Your task to perform on an android device: Go to location settings Image 0: 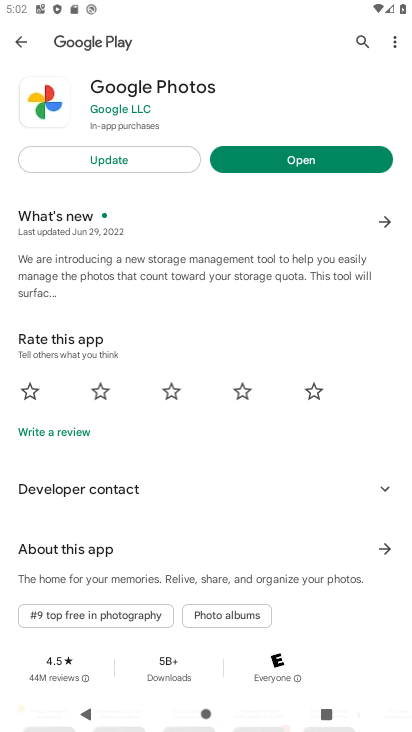
Step 0: drag from (231, 5) to (168, 554)
Your task to perform on an android device: Go to location settings Image 1: 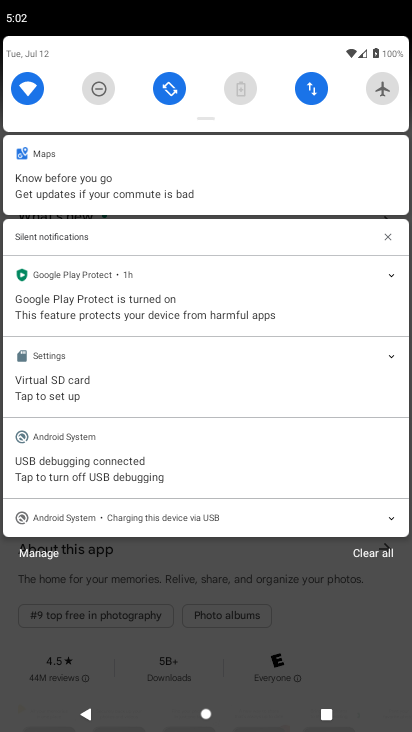
Step 1: drag from (221, 54) to (212, 626)
Your task to perform on an android device: Go to location settings Image 2: 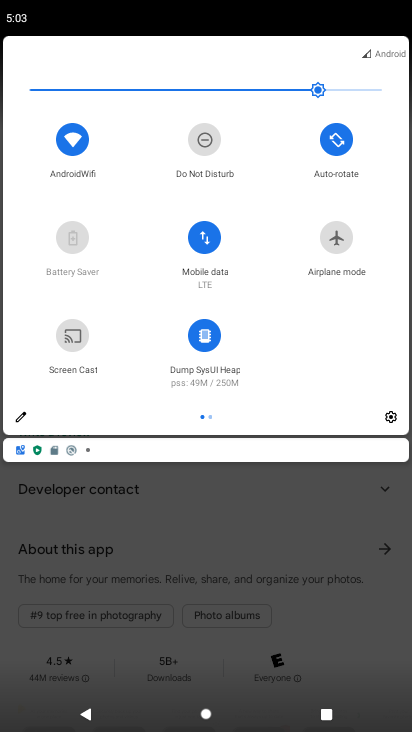
Step 2: click (389, 415)
Your task to perform on an android device: Go to location settings Image 3: 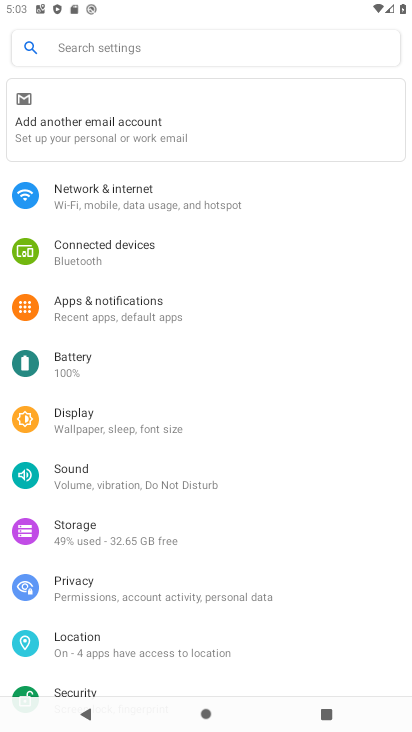
Step 3: click (79, 633)
Your task to perform on an android device: Go to location settings Image 4: 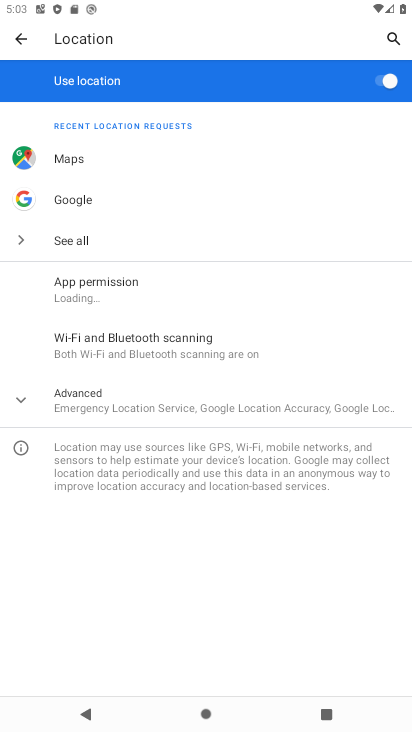
Step 4: task complete